Your task to perform on an android device: turn off location Image 0: 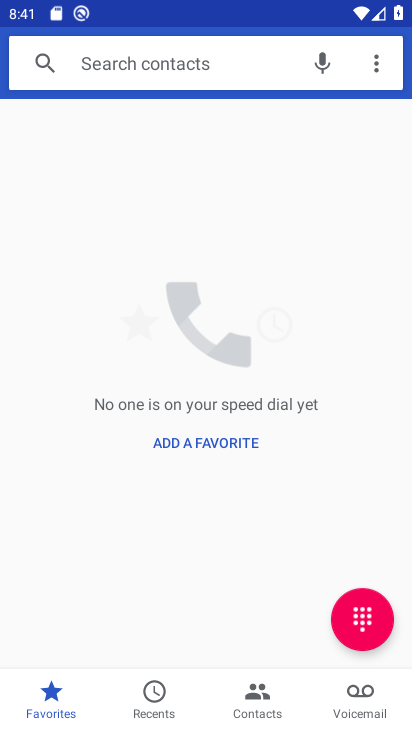
Step 0: drag from (181, 667) to (179, 275)
Your task to perform on an android device: turn off location Image 1: 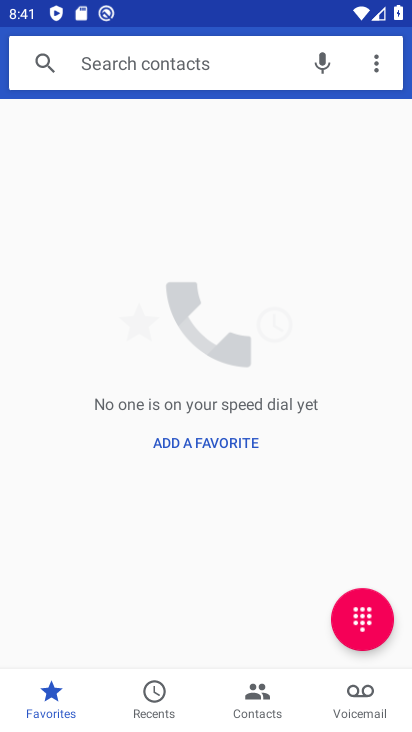
Step 1: press back button
Your task to perform on an android device: turn off location Image 2: 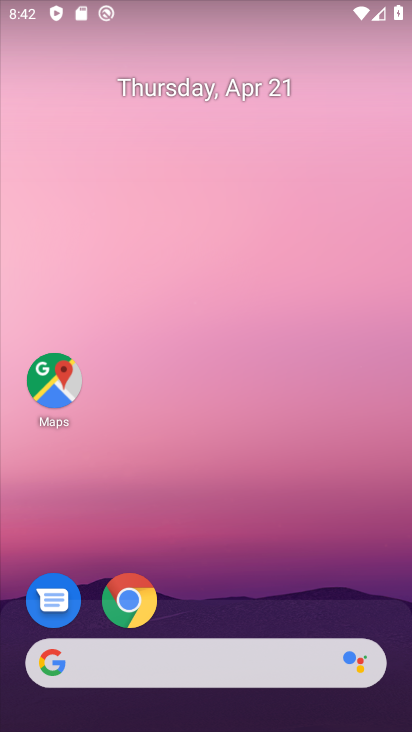
Step 2: drag from (192, 655) to (225, 294)
Your task to perform on an android device: turn off location Image 3: 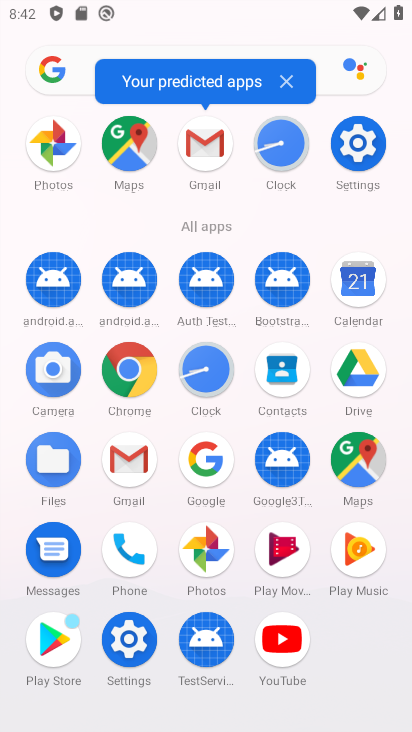
Step 3: click (357, 145)
Your task to perform on an android device: turn off location Image 4: 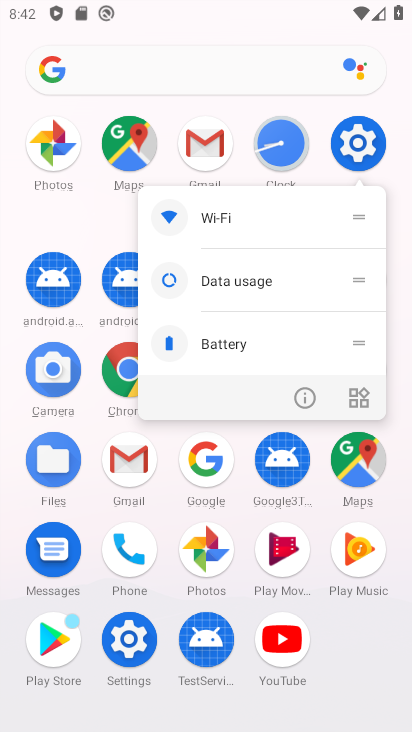
Step 4: click (357, 145)
Your task to perform on an android device: turn off location Image 5: 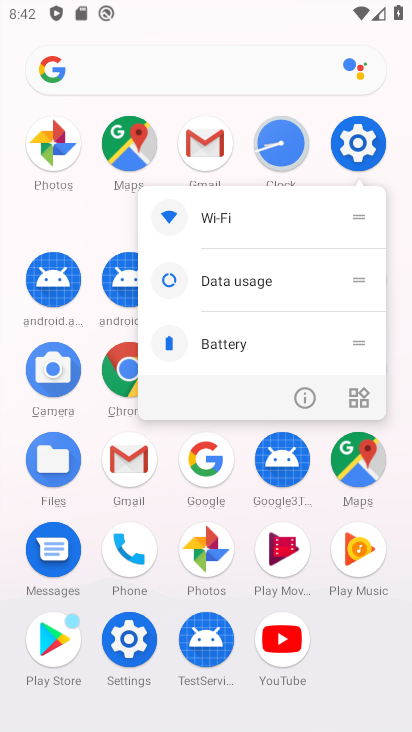
Step 5: click (359, 145)
Your task to perform on an android device: turn off location Image 6: 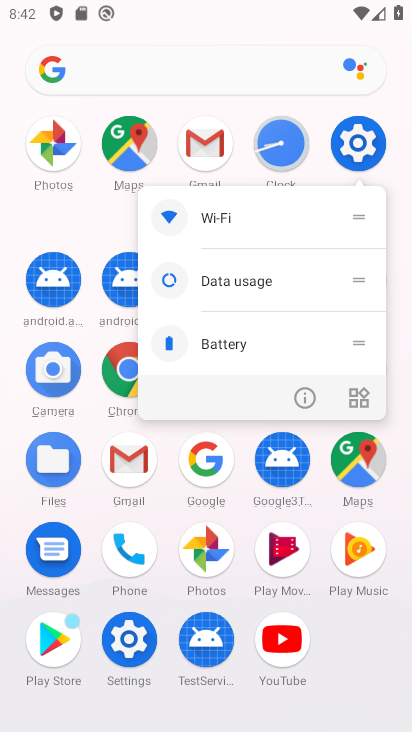
Step 6: click (359, 145)
Your task to perform on an android device: turn off location Image 7: 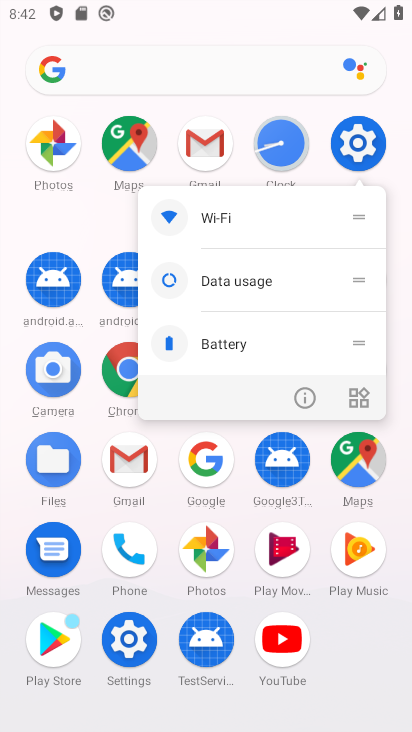
Step 7: click (368, 154)
Your task to perform on an android device: turn off location Image 8: 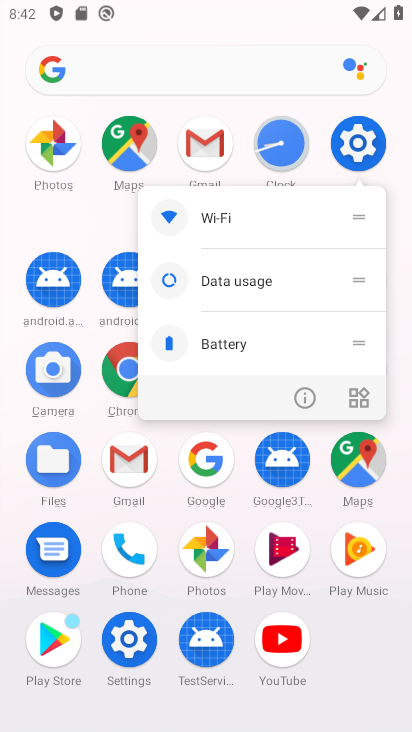
Step 8: click (358, 147)
Your task to perform on an android device: turn off location Image 9: 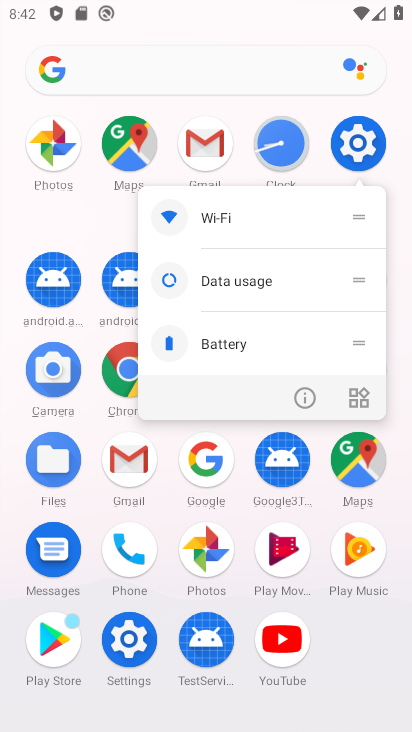
Step 9: click (358, 146)
Your task to perform on an android device: turn off location Image 10: 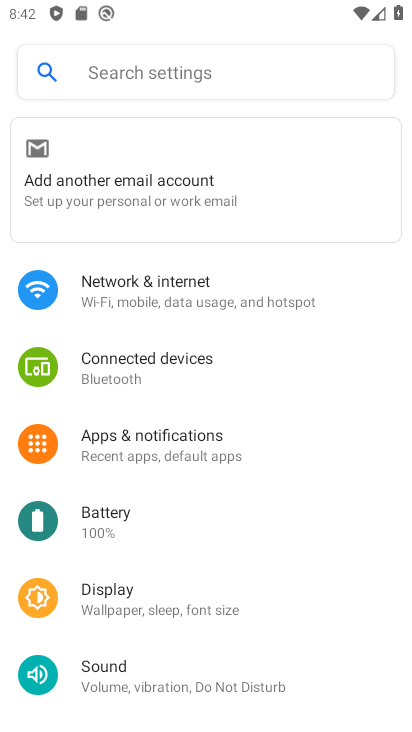
Step 10: drag from (130, 689) to (134, 325)
Your task to perform on an android device: turn off location Image 11: 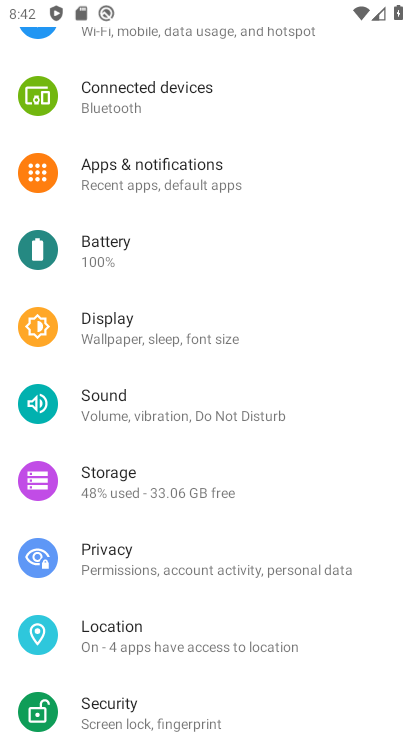
Step 11: click (79, 645)
Your task to perform on an android device: turn off location Image 12: 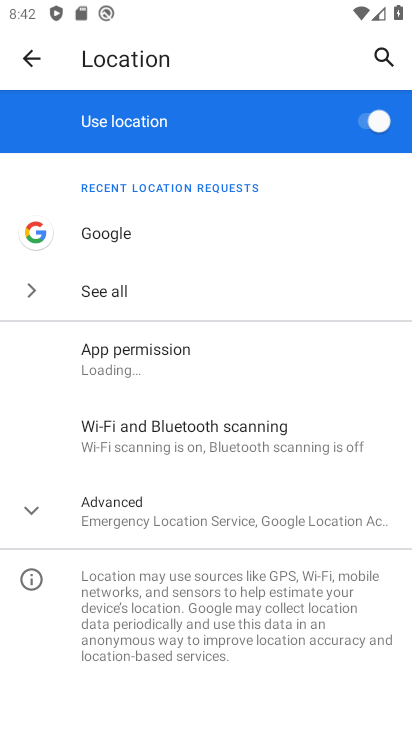
Step 12: click (176, 507)
Your task to perform on an android device: turn off location Image 13: 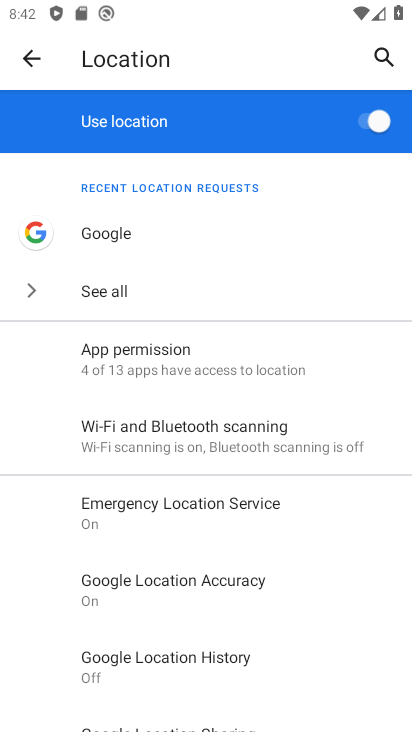
Step 13: click (358, 118)
Your task to perform on an android device: turn off location Image 14: 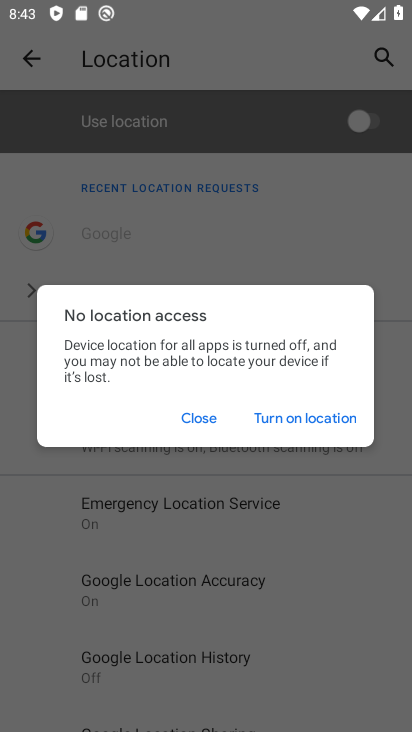
Step 14: task complete